Your task to perform on an android device: turn on javascript in the chrome app Image 0: 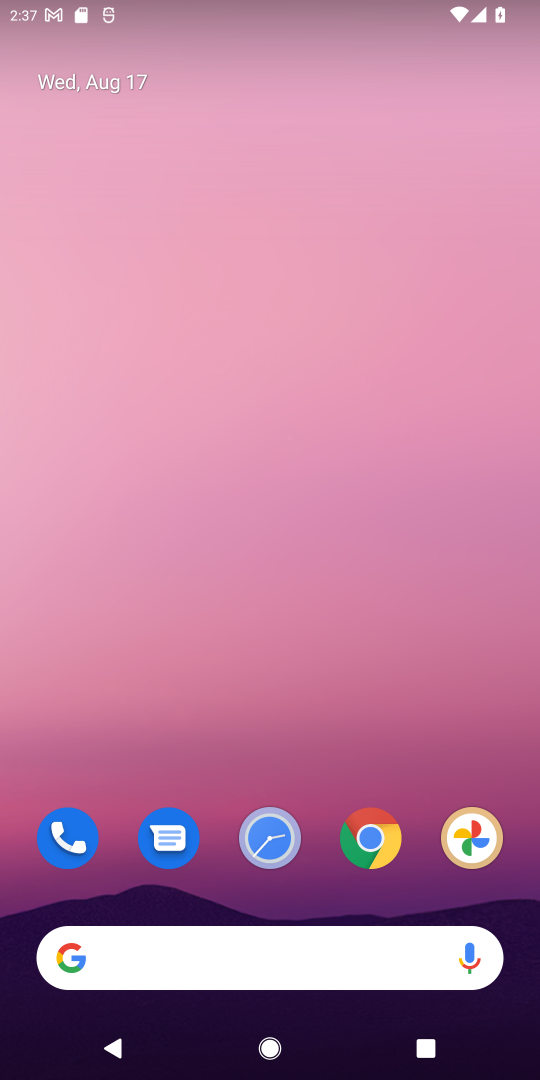
Step 0: click (381, 848)
Your task to perform on an android device: turn on javascript in the chrome app Image 1: 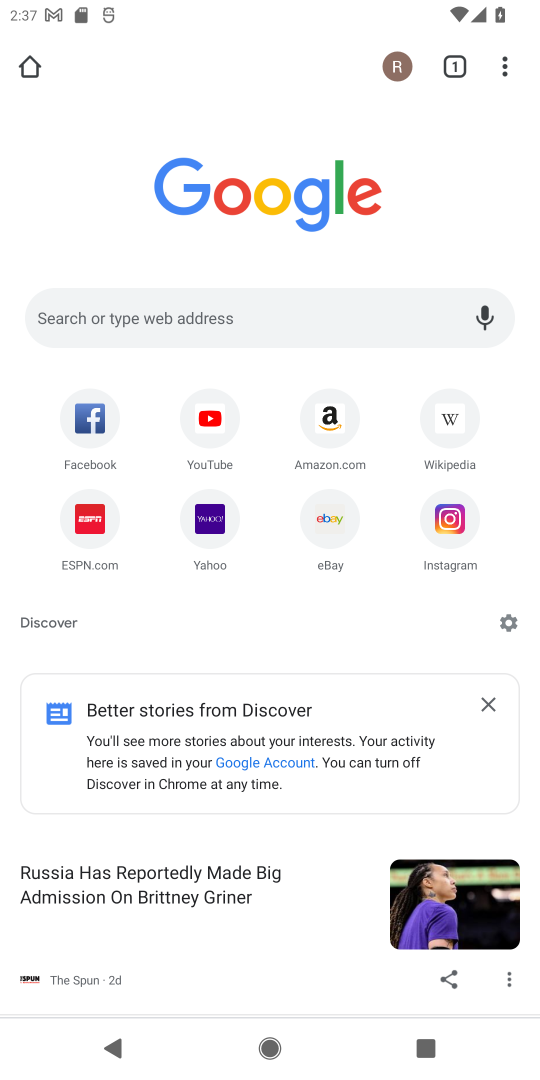
Step 1: click (502, 51)
Your task to perform on an android device: turn on javascript in the chrome app Image 2: 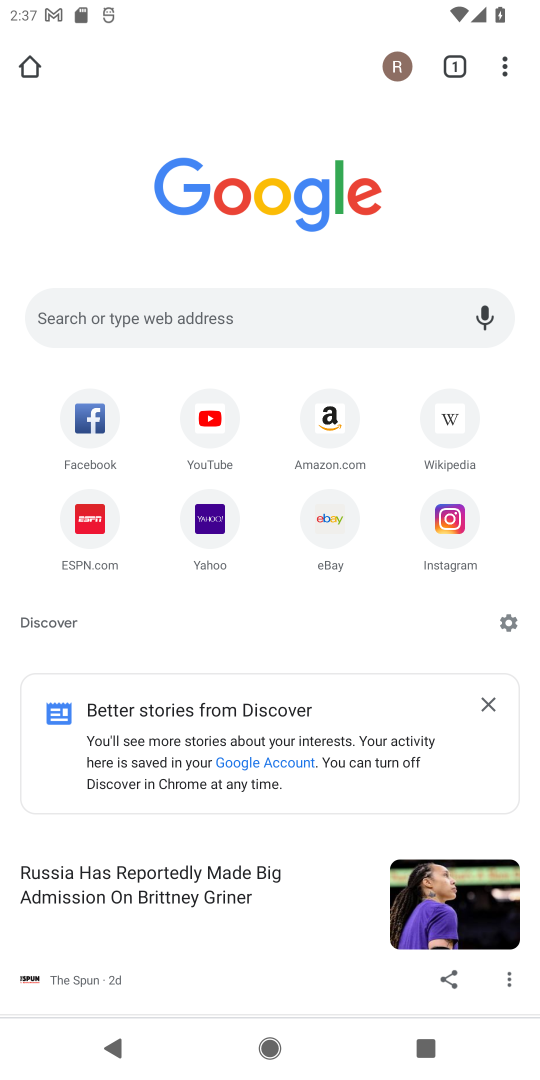
Step 2: click (504, 84)
Your task to perform on an android device: turn on javascript in the chrome app Image 3: 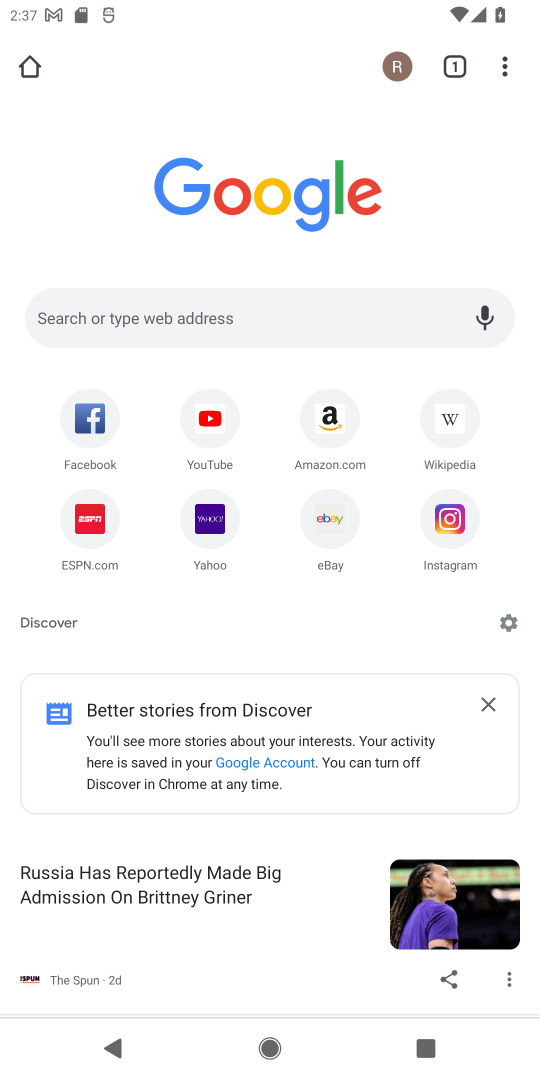
Step 3: click (504, 73)
Your task to perform on an android device: turn on javascript in the chrome app Image 4: 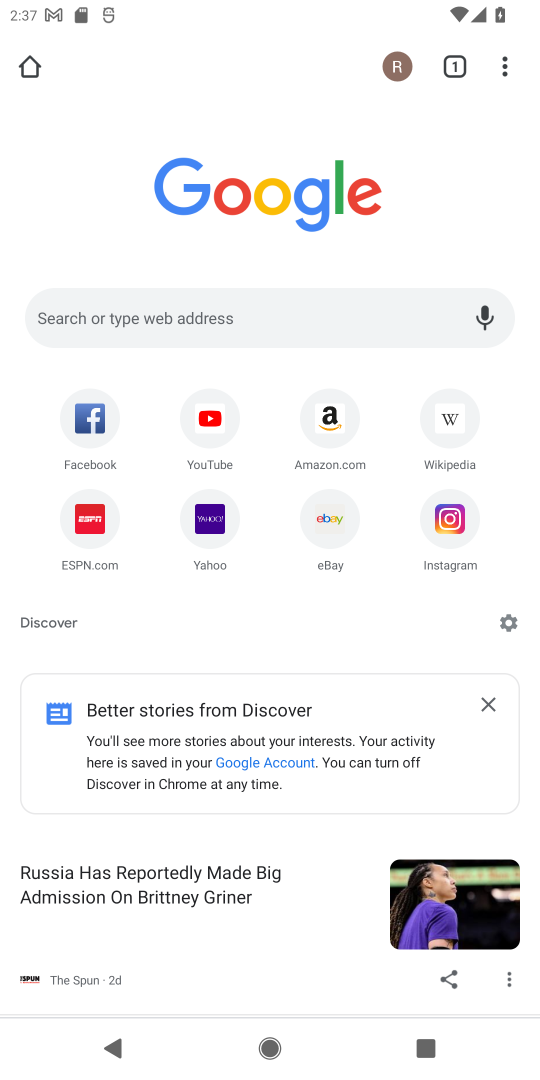
Step 4: click (504, 73)
Your task to perform on an android device: turn on javascript in the chrome app Image 5: 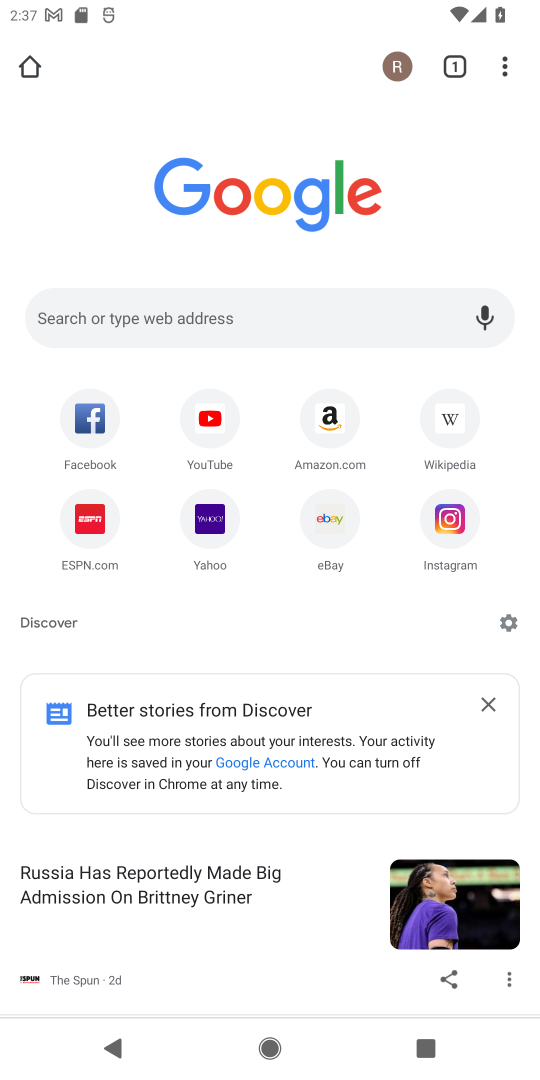
Step 5: click (500, 58)
Your task to perform on an android device: turn on javascript in the chrome app Image 6: 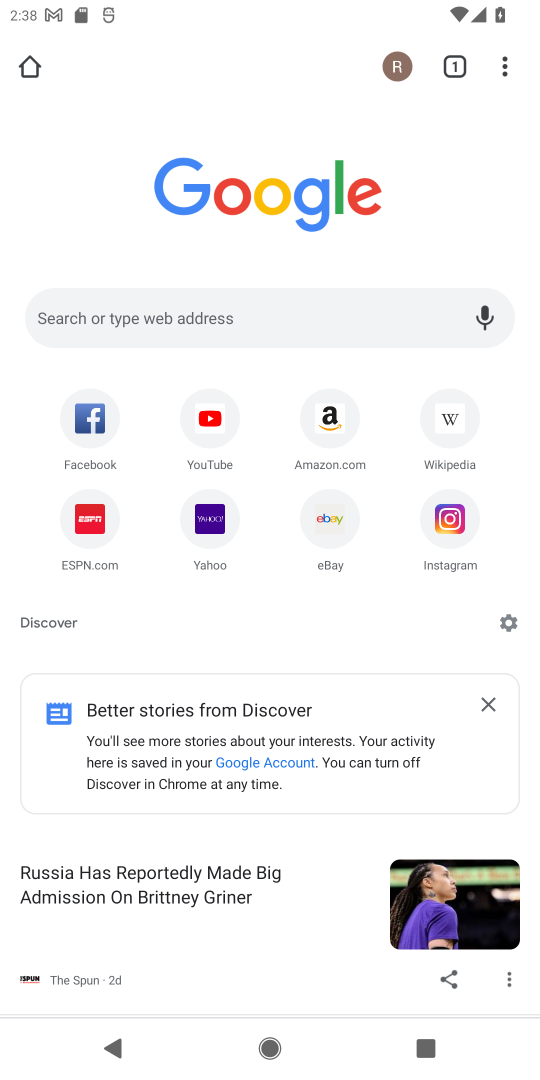
Step 6: click (500, 58)
Your task to perform on an android device: turn on javascript in the chrome app Image 7: 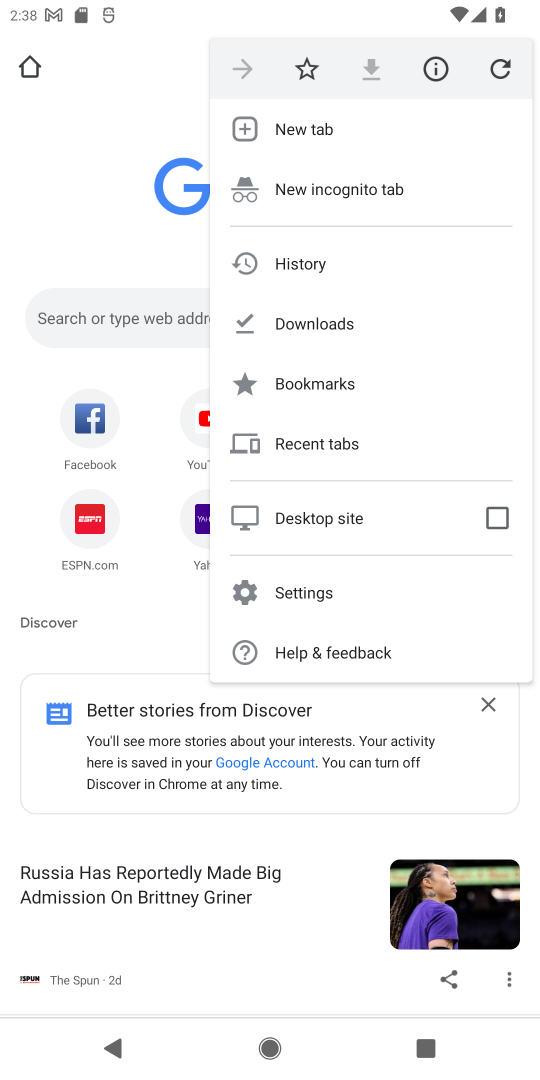
Step 7: click (287, 589)
Your task to perform on an android device: turn on javascript in the chrome app Image 8: 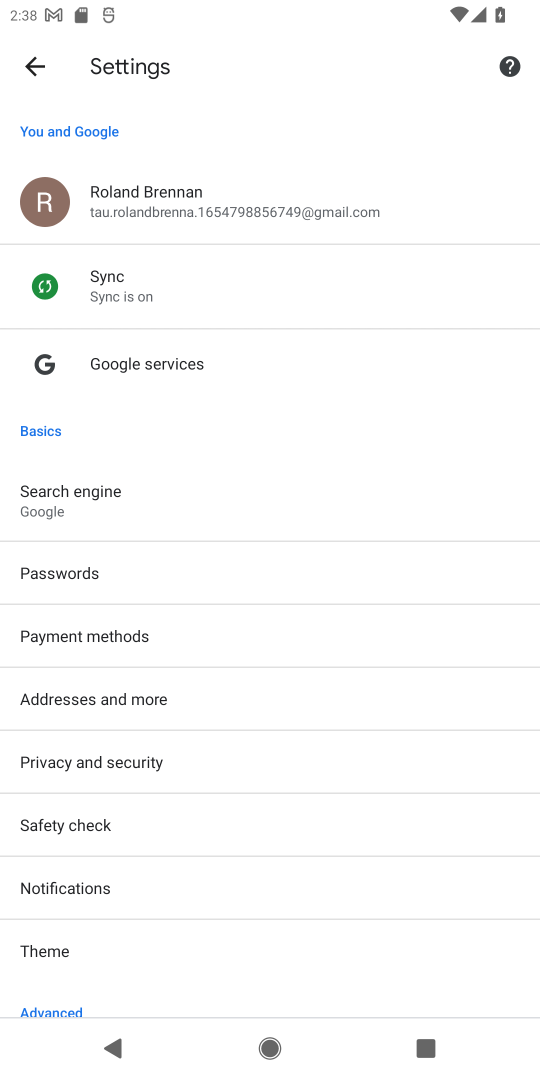
Step 8: drag from (121, 1006) to (124, 481)
Your task to perform on an android device: turn on javascript in the chrome app Image 9: 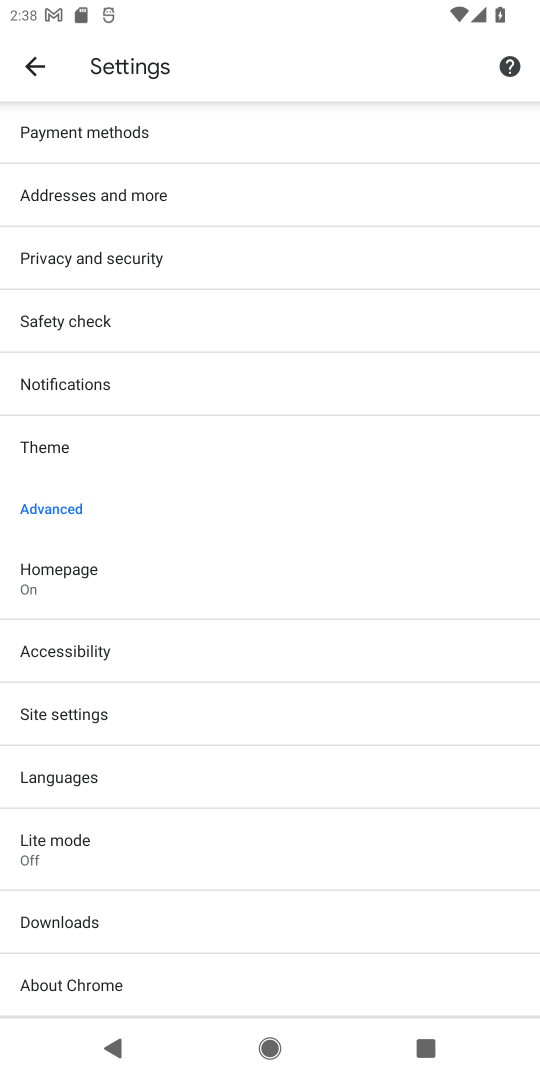
Step 9: click (81, 704)
Your task to perform on an android device: turn on javascript in the chrome app Image 10: 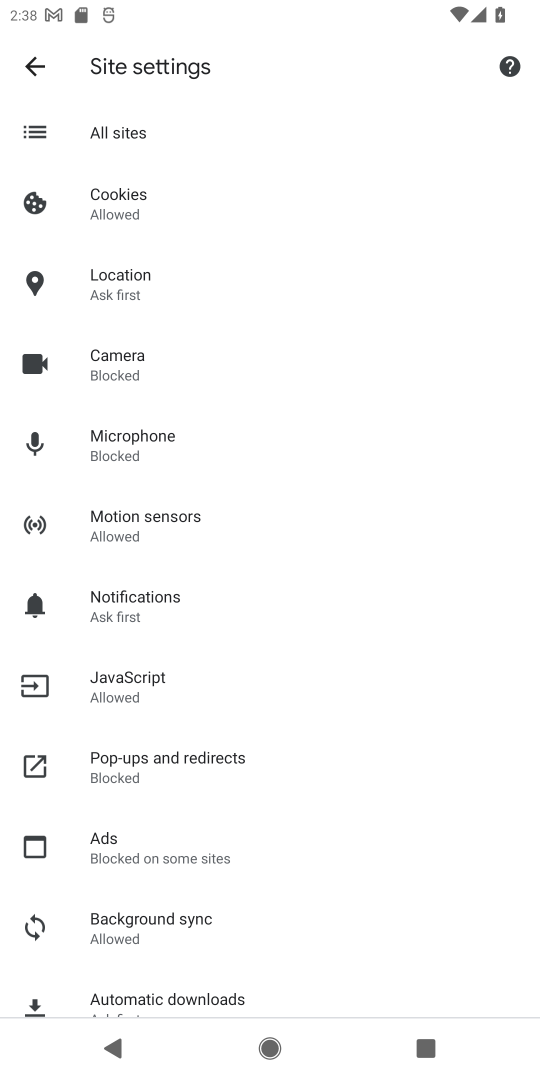
Step 10: drag from (203, 977) to (207, 492)
Your task to perform on an android device: turn on javascript in the chrome app Image 11: 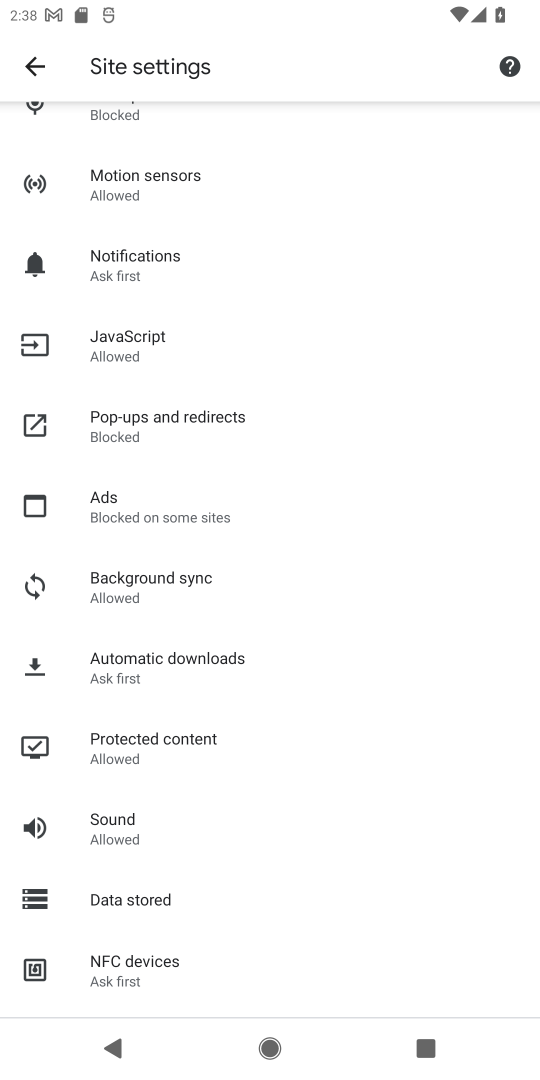
Step 11: drag from (170, 965) to (146, 477)
Your task to perform on an android device: turn on javascript in the chrome app Image 12: 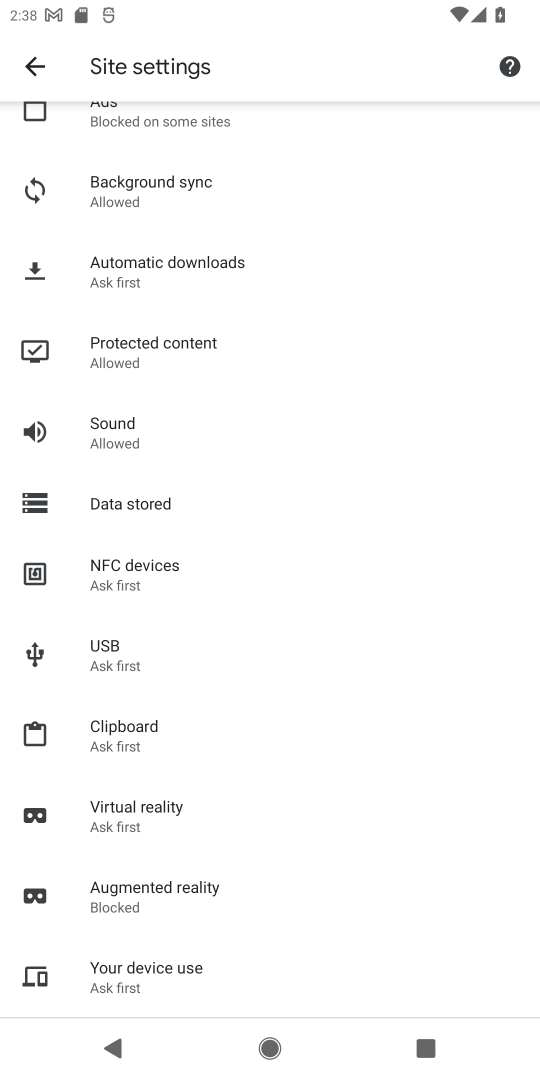
Step 12: drag from (190, 936) to (186, 504)
Your task to perform on an android device: turn on javascript in the chrome app Image 13: 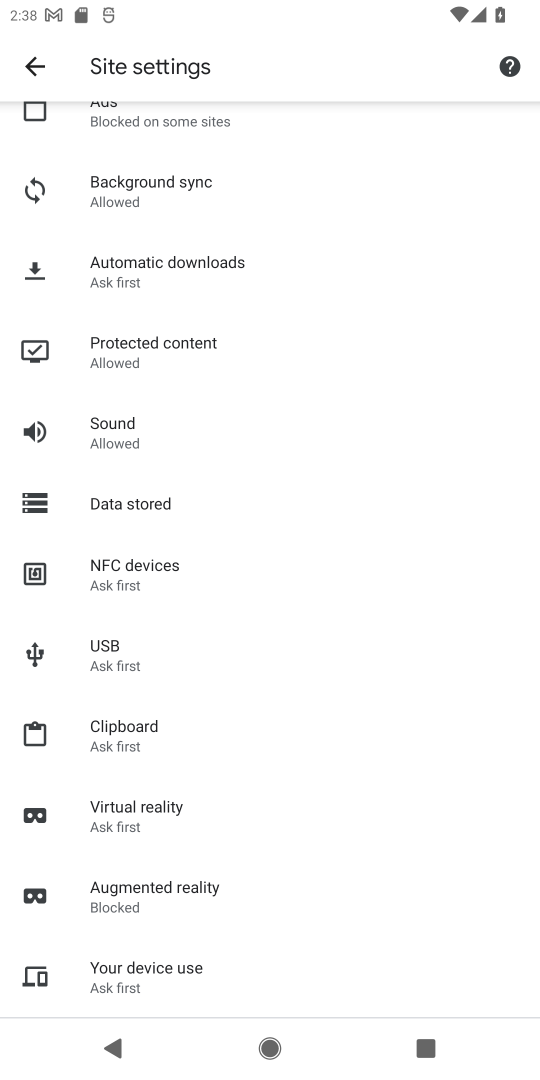
Step 13: drag from (260, 760) to (311, 192)
Your task to perform on an android device: turn on javascript in the chrome app Image 14: 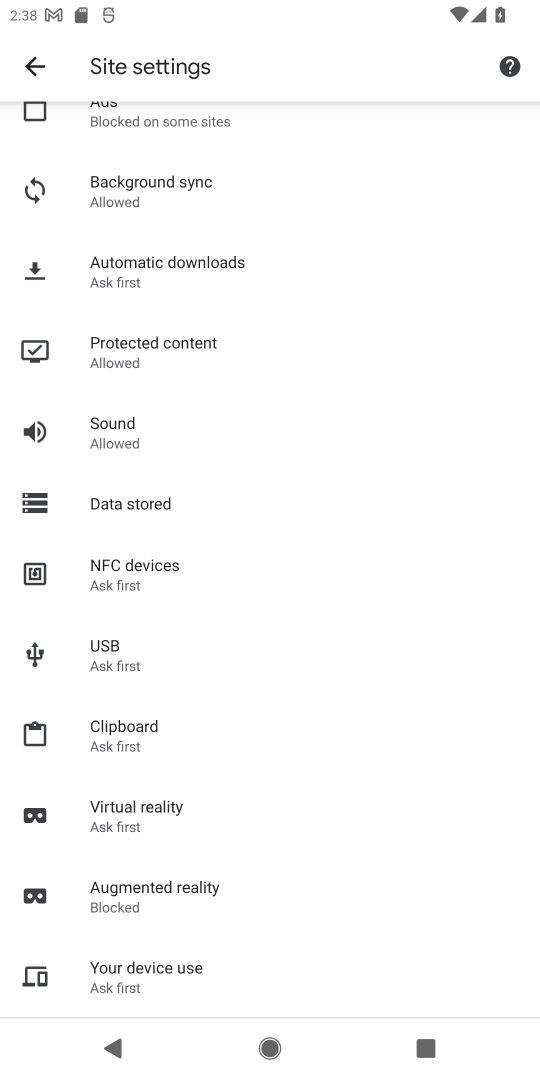
Step 14: drag from (300, 271) to (326, 858)
Your task to perform on an android device: turn on javascript in the chrome app Image 15: 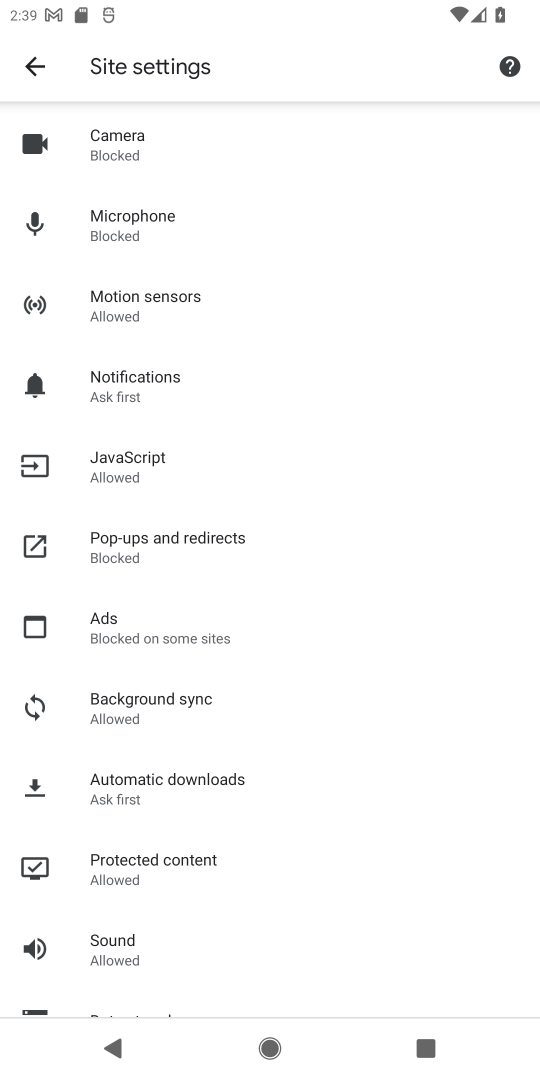
Step 15: drag from (253, 273) to (314, 592)
Your task to perform on an android device: turn on javascript in the chrome app Image 16: 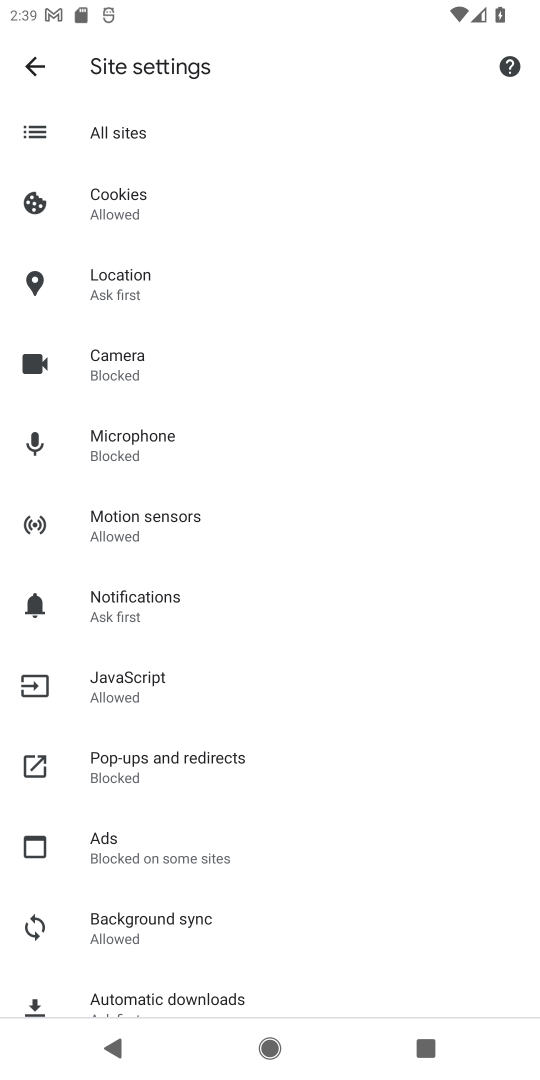
Step 16: click (106, 577)
Your task to perform on an android device: turn on javascript in the chrome app Image 17: 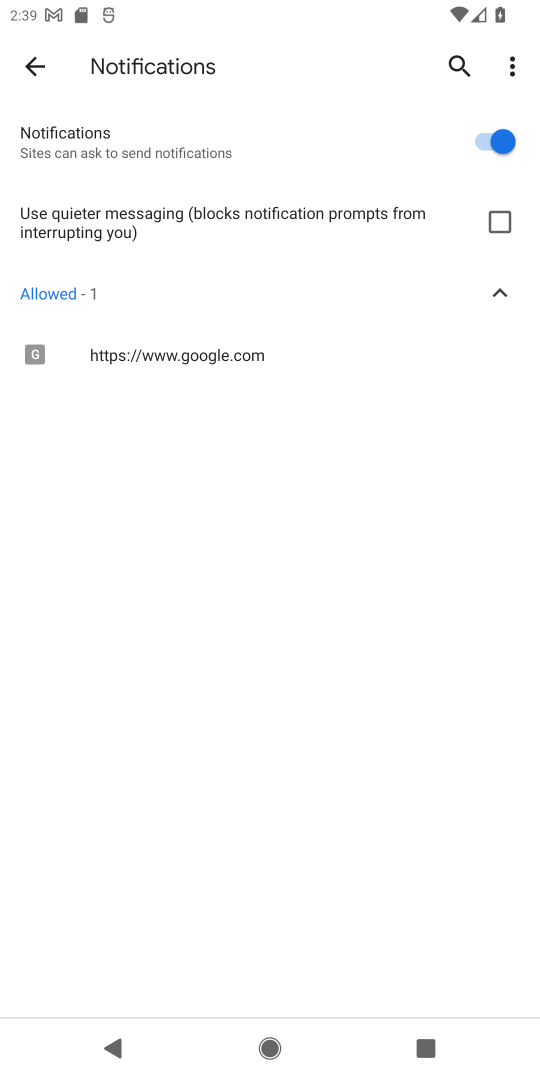
Step 17: task complete